Your task to perform on an android device: toggle improve location accuracy Image 0: 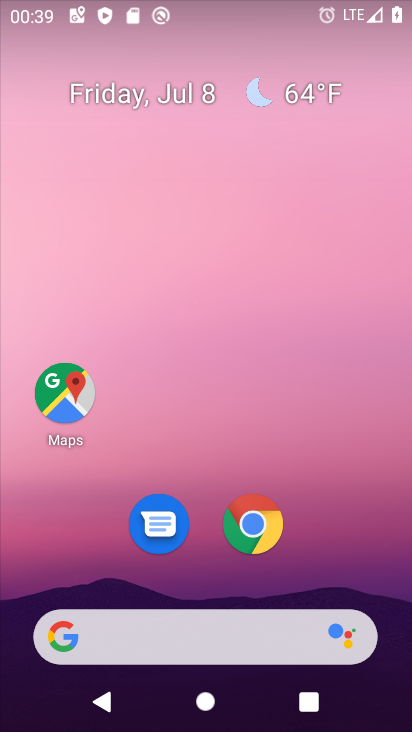
Step 0: drag from (337, 542) to (349, 47)
Your task to perform on an android device: toggle improve location accuracy Image 1: 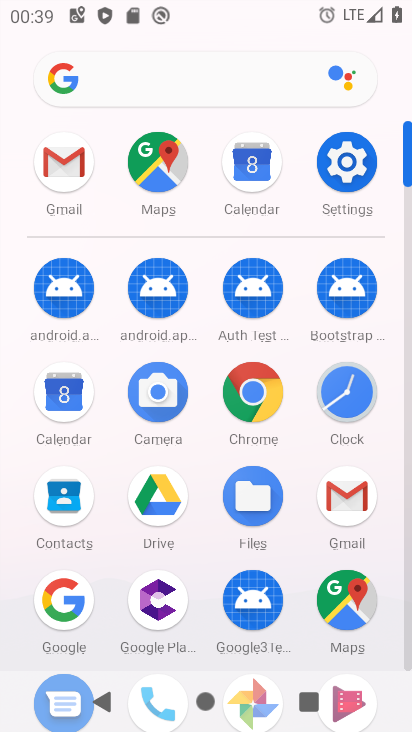
Step 1: click (347, 170)
Your task to perform on an android device: toggle improve location accuracy Image 2: 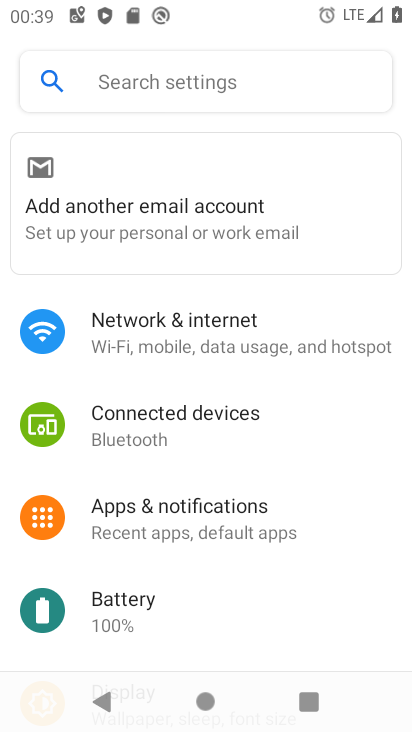
Step 2: drag from (224, 572) to (232, 79)
Your task to perform on an android device: toggle improve location accuracy Image 3: 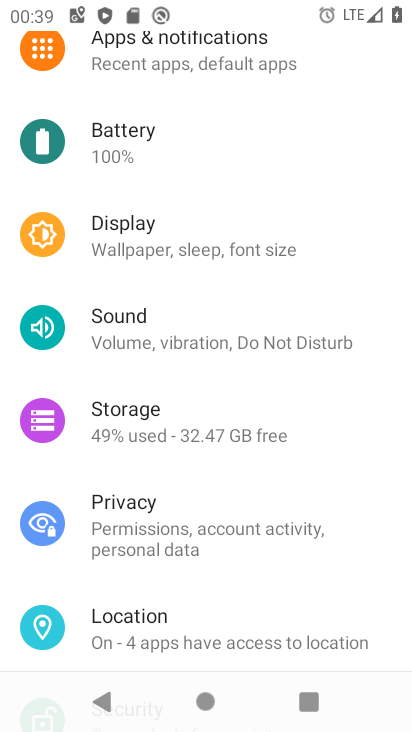
Step 3: click (233, 637)
Your task to perform on an android device: toggle improve location accuracy Image 4: 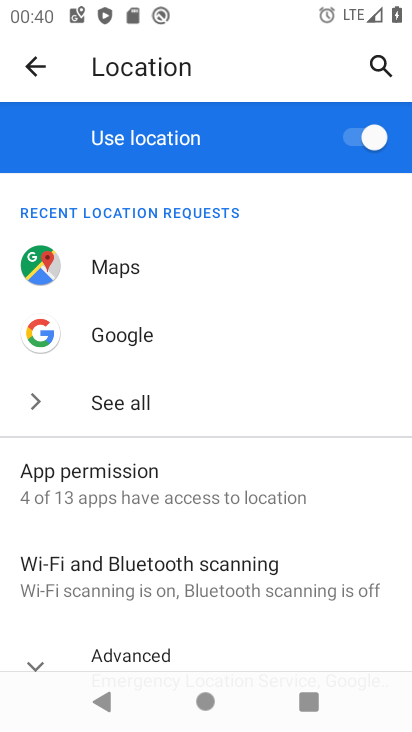
Step 4: task complete